Your task to perform on an android device: set default search engine in the chrome app Image 0: 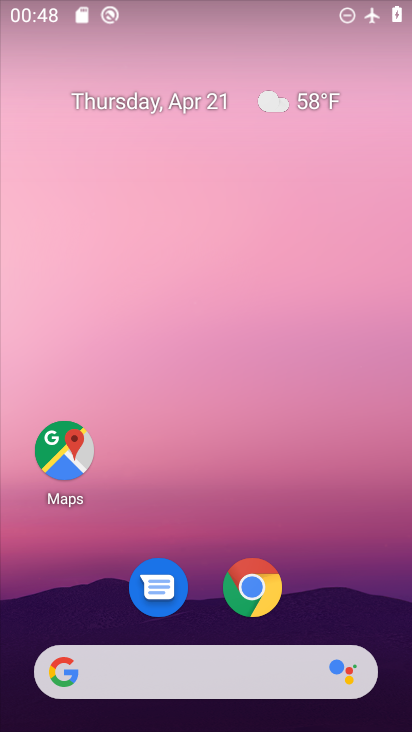
Step 0: click (247, 585)
Your task to perform on an android device: set default search engine in the chrome app Image 1: 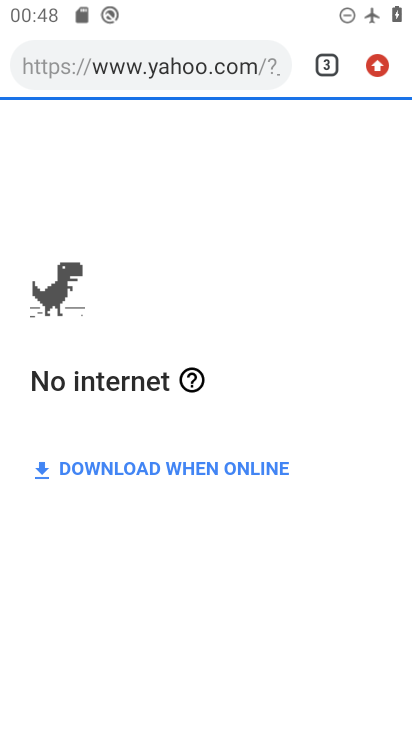
Step 1: click (383, 45)
Your task to perform on an android device: set default search engine in the chrome app Image 2: 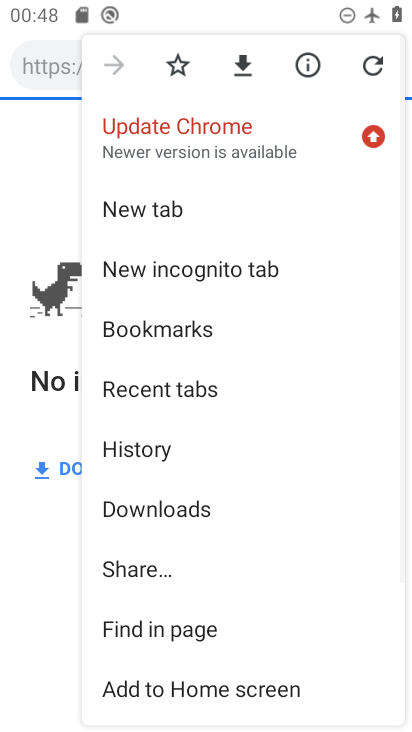
Step 2: click (370, 77)
Your task to perform on an android device: set default search engine in the chrome app Image 3: 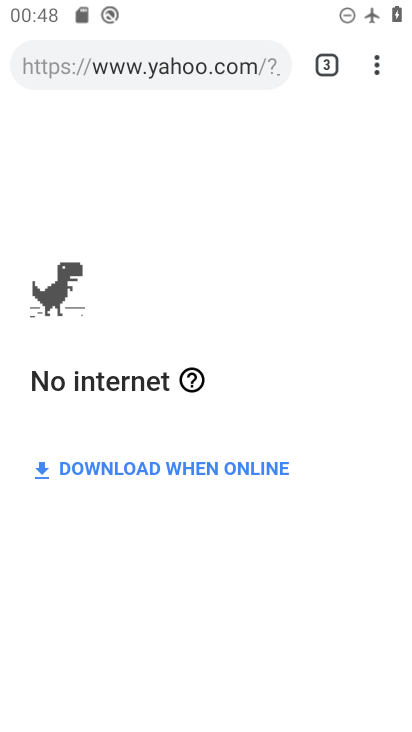
Step 3: click (380, 72)
Your task to perform on an android device: set default search engine in the chrome app Image 4: 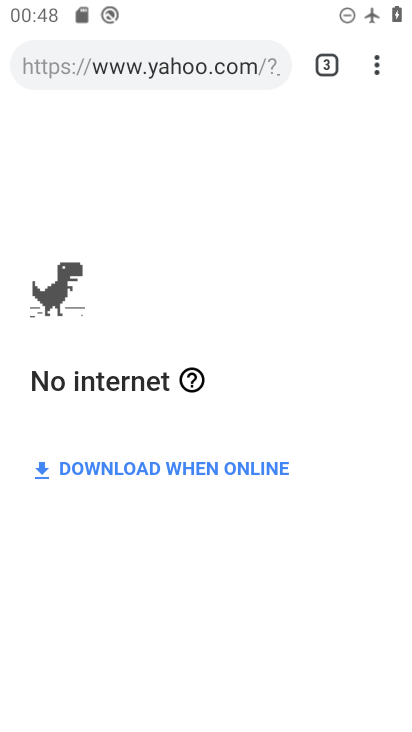
Step 4: click (371, 66)
Your task to perform on an android device: set default search engine in the chrome app Image 5: 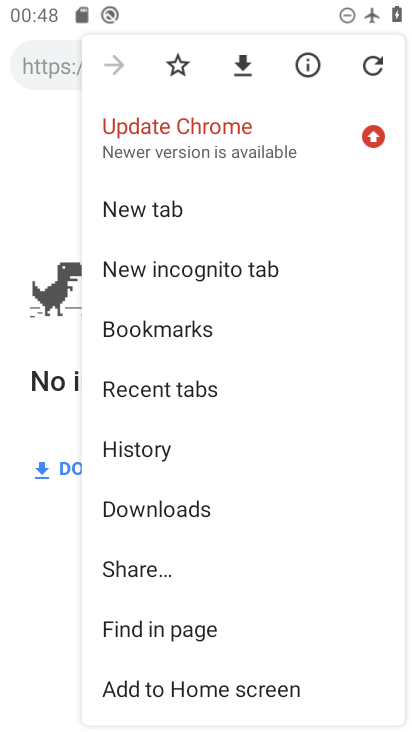
Step 5: drag from (129, 612) to (221, 229)
Your task to perform on an android device: set default search engine in the chrome app Image 6: 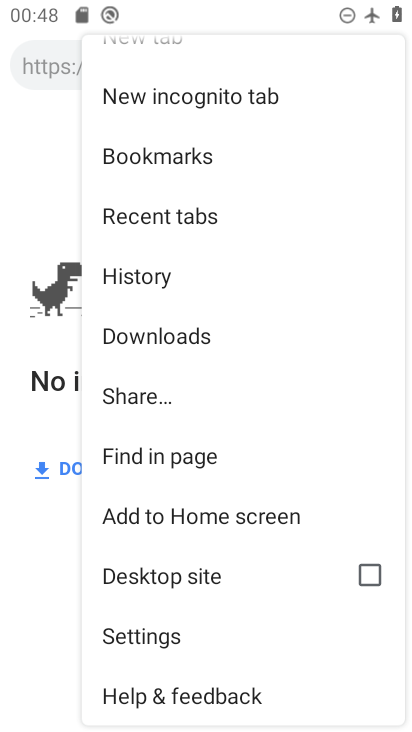
Step 6: click (164, 638)
Your task to perform on an android device: set default search engine in the chrome app Image 7: 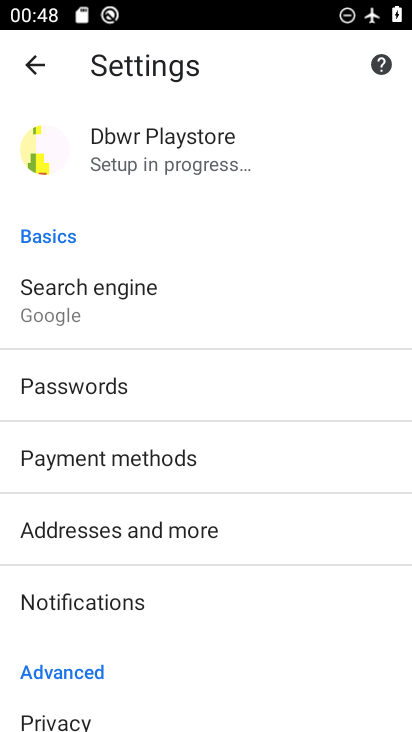
Step 7: click (156, 317)
Your task to perform on an android device: set default search engine in the chrome app Image 8: 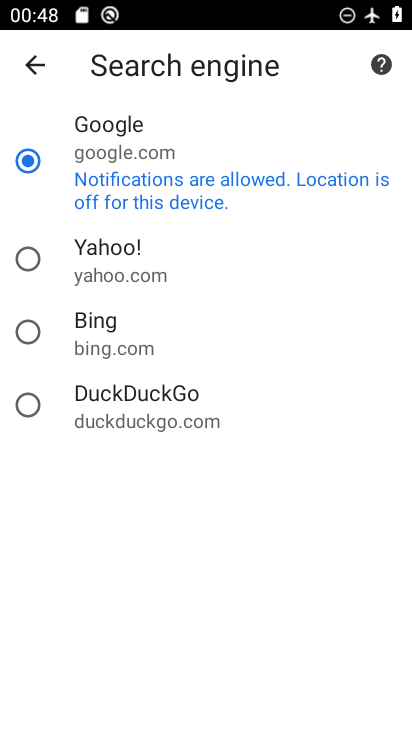
Step 8: click (81, 184)
Your task to perform on an android device: set default search engine in the chrome app Image 9: 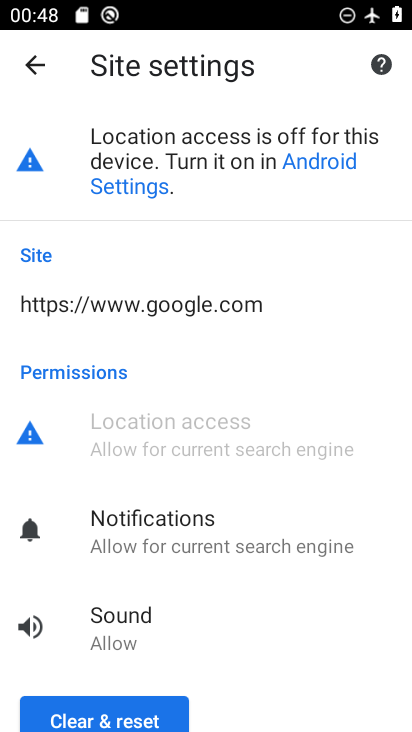
Step 9: drag from (74, 494) to (128, 166)
Your task to perform on an android device: set default search engine in the chrome app Image 10: 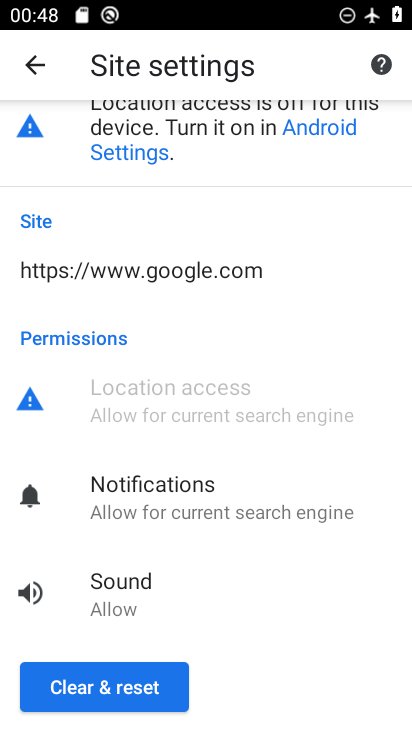
Step 10: click (75, 686)
Your task to perform on an android device: set default search engine in the chrome app Image 11: 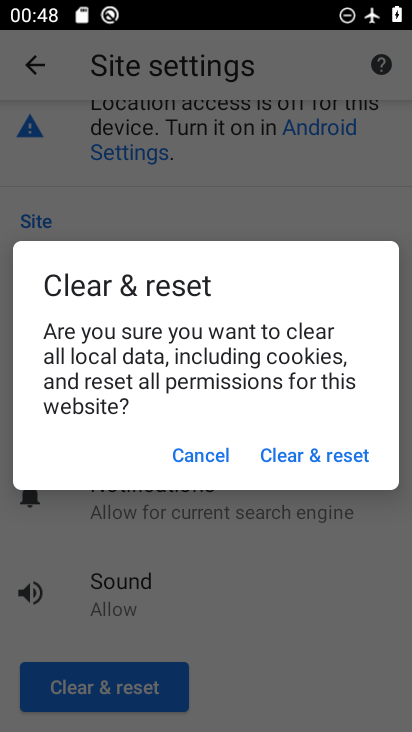
Step 11: click (314, 456)
Your task to perform on an android device: set default search engine in the chrome app Image 12: 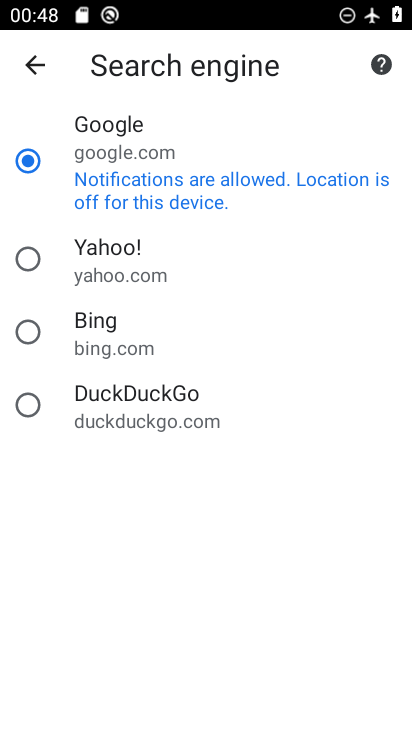
Step 12: task complete